Your task to perform on an android device: Open ESPN.com Image 0: 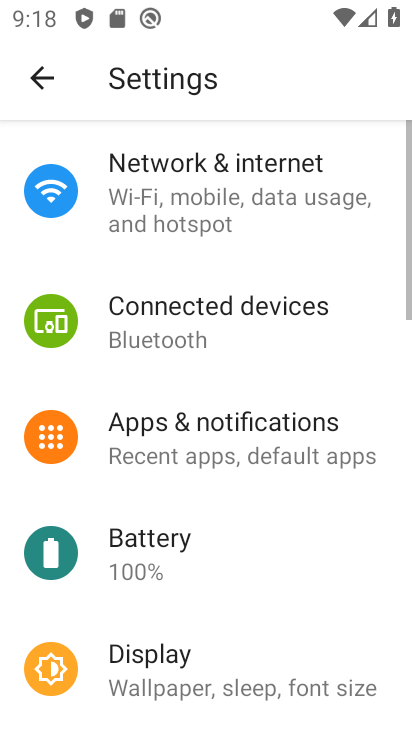
Step 0: press home button
Your task to perform on an android device: Open ESPN.com Image 1: 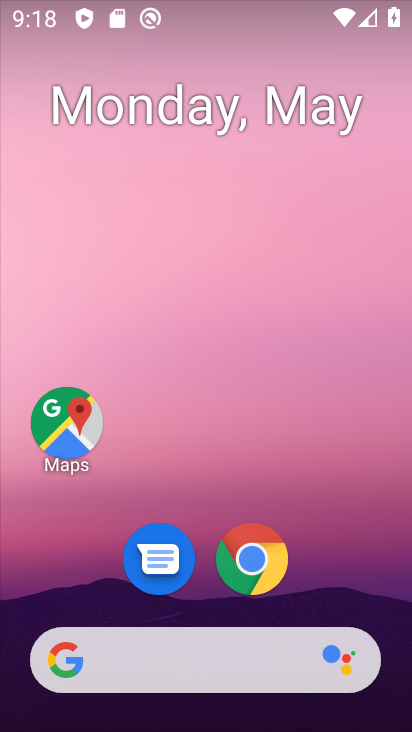
Step 1: click (277, 552)
Your task to perform on an android device: Open ESPN.com Image 2: 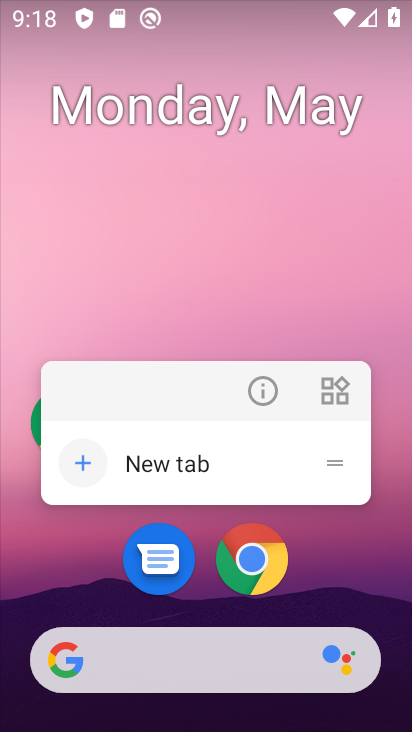
Step 2: click (263, 560)
Your task to perform on an android device: Open ESPN.com Image 3: 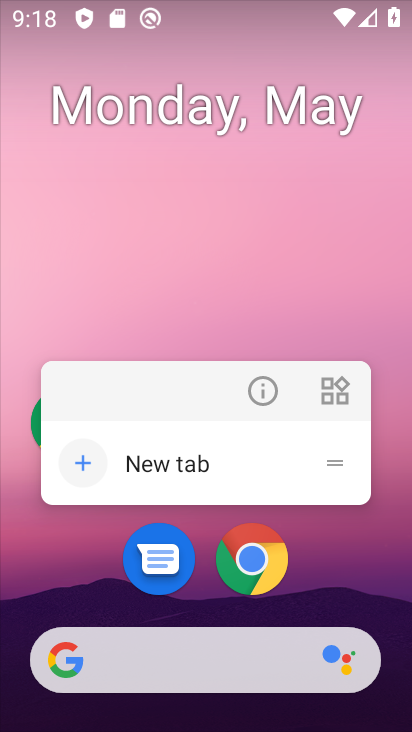
Step 3: click (251, 558)
Your task to perform on an android device: Open ESPN.com Image 4: 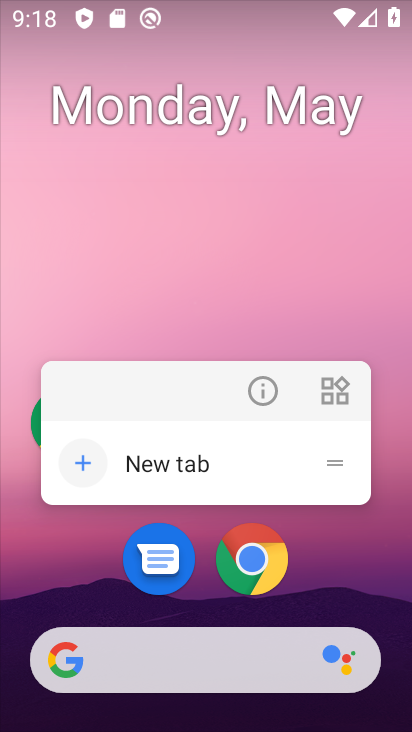
Step 4: click (261, 554)
Your task to perform on an android device: Open ESPN.com Image 5: 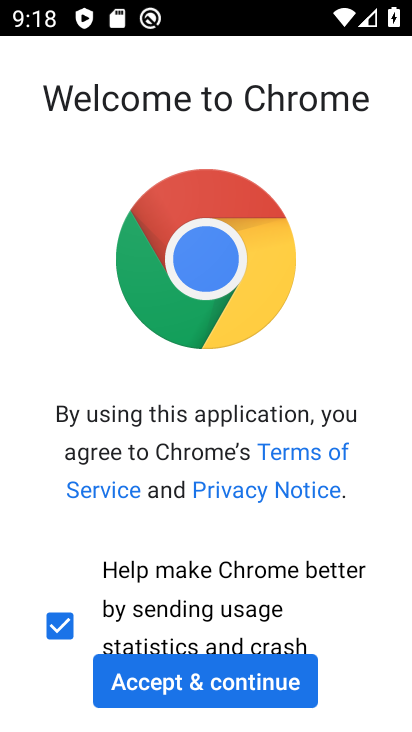
Step 5: click (283, 695)
Your task to perform on an android device: Open ESPN.com Image 6: 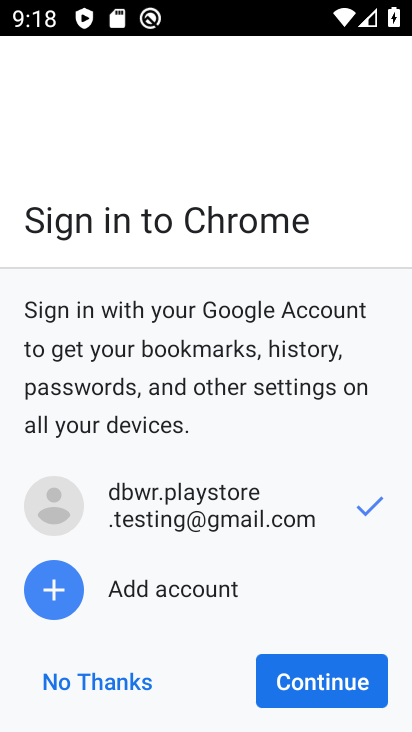
Step 6: click (342, 694)
Your task to perform on an android device: Open ESPN.com Image 7: 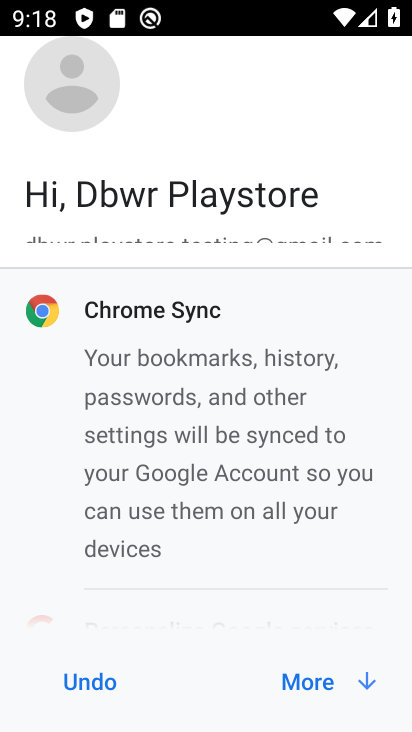
Step 7: click (342, 676)
Your task to perform on an android device: Open ESPN.com Image 8: 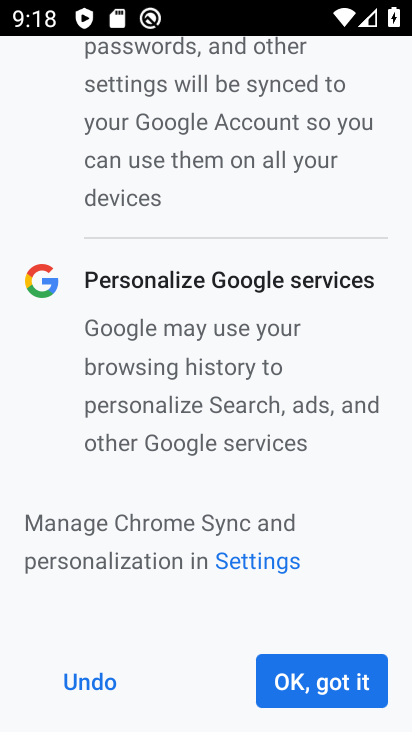
Step 8: click (342, 675)
Your task to perform on an android device: Open ESPN.com Image 9: 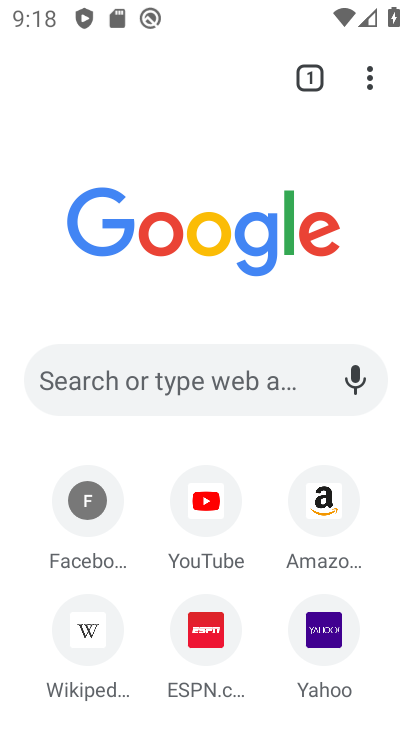
Step 9: click (204, 613)
Your task to perform on an android device: Open ESPN.com Image 10: 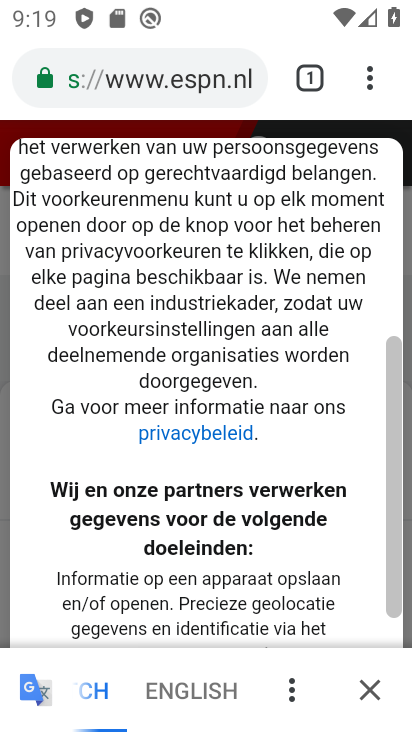
Step 10: click (206, 694)
Your task to perform on an android device: Open ESPN.com Image 11: 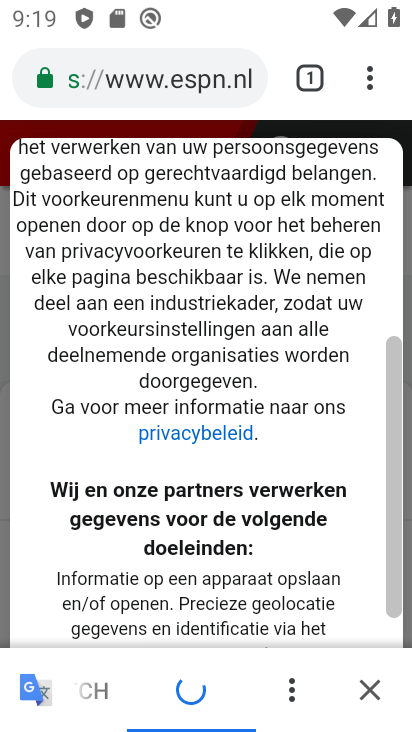
Step 11: click (368, 694)
Your task to perform on an android device: Open ESPN.com Image 12: 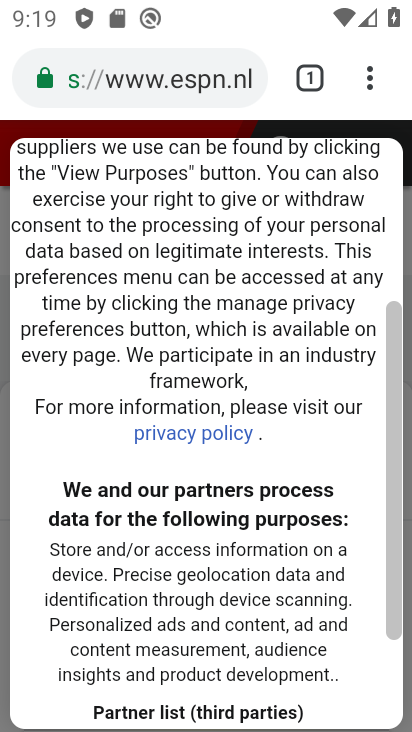
Step 12: drag from (192, 638) to (269, 273)
Your task to perform on an android device: Open ESPN.com Image 13: 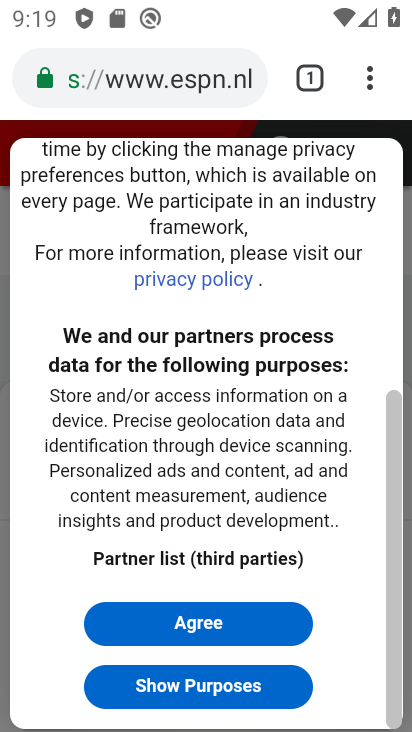
Step 13: click (251, 625)
Your task to perform on an android device: Open ESPN.com Image 14: 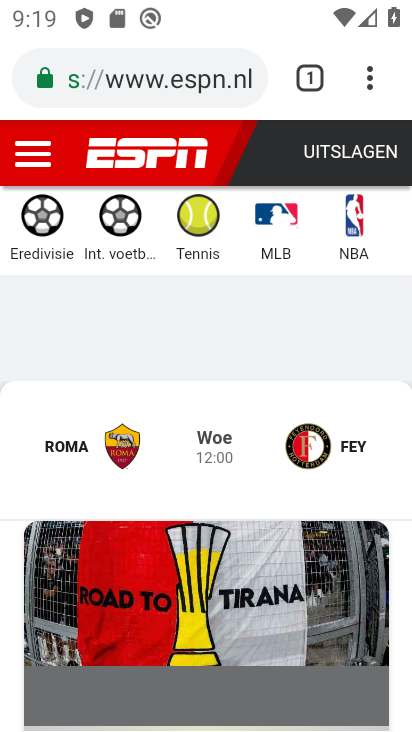
Step 14: task complete